Your task to perform on an android device: toggle wifi Image 0: 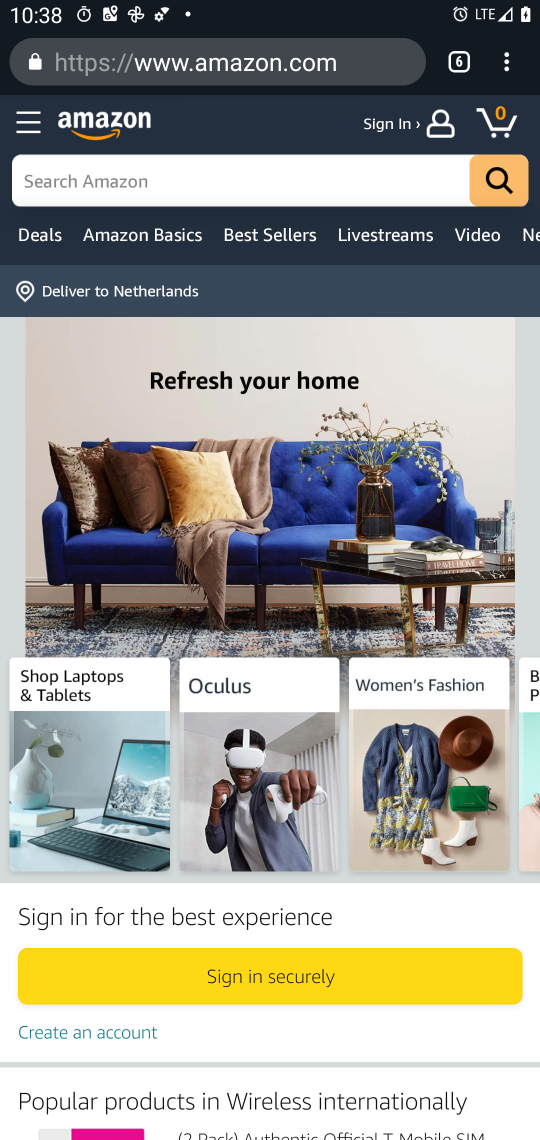
Step 0: press home button
Your task to perform on an android device: toggle wifi Image 1: 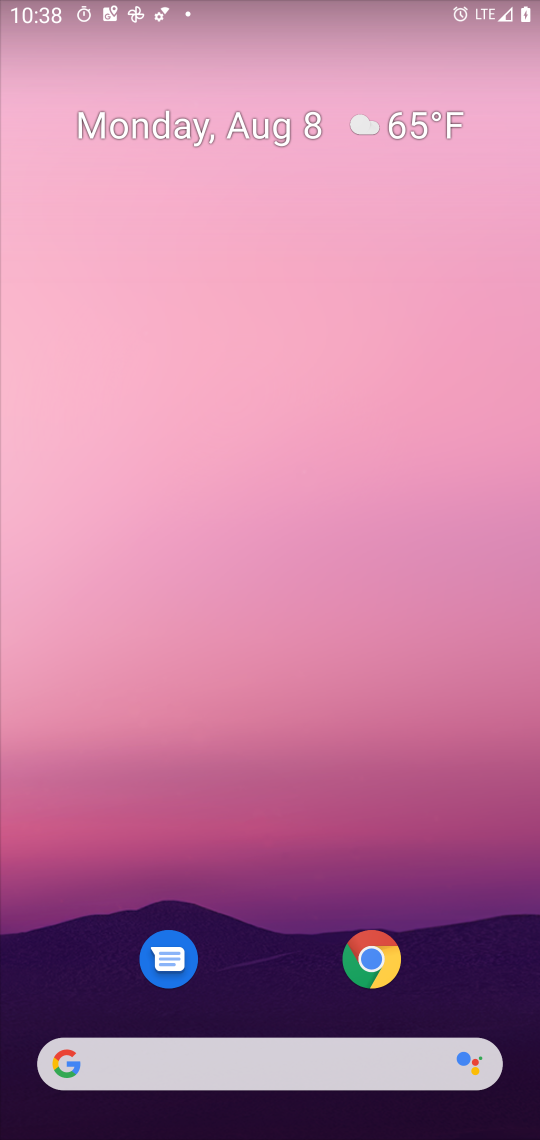
Step 1: drag from (441, 874) to (329, 387)
Your task to perform on an android device: toggle wifi Image 2: 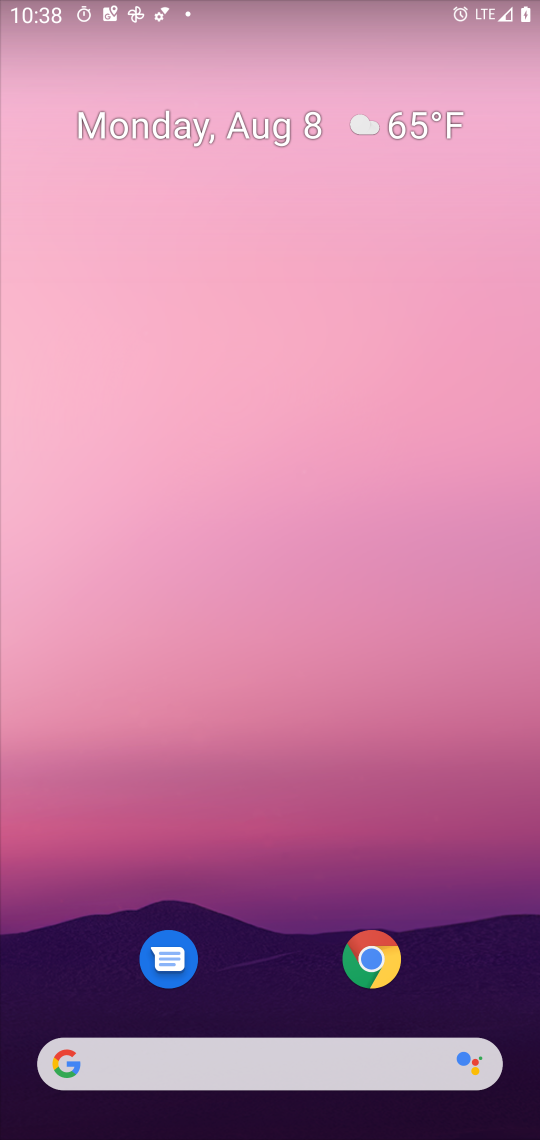
Step 2: drag from (270, 0) to (321, 741)
Your task to perform on an android device: toggle wifi Image 3: 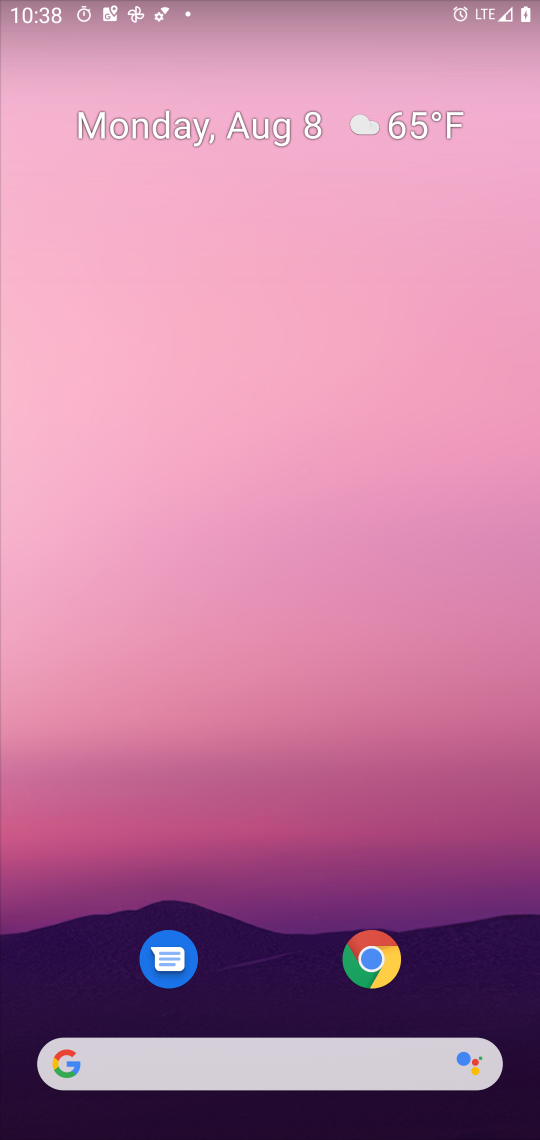
Step 3: drag from (282, 17) to (354, 880)
Your task to perform on an android device: toggle wifi Image 4: 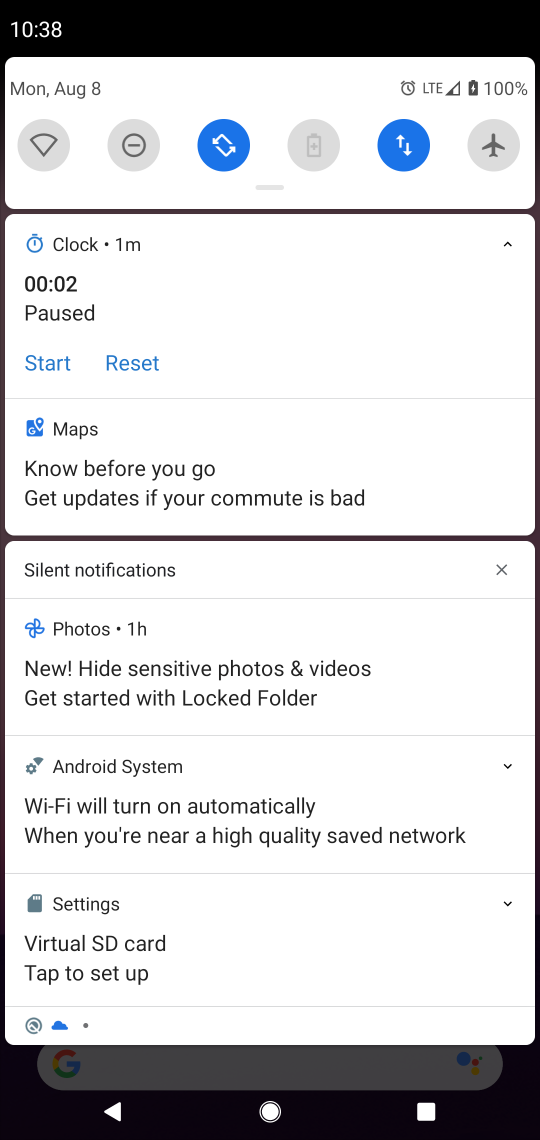
Step 4: click (40, 146)
Your task to perform on an android device: toggle wifi Image 5: 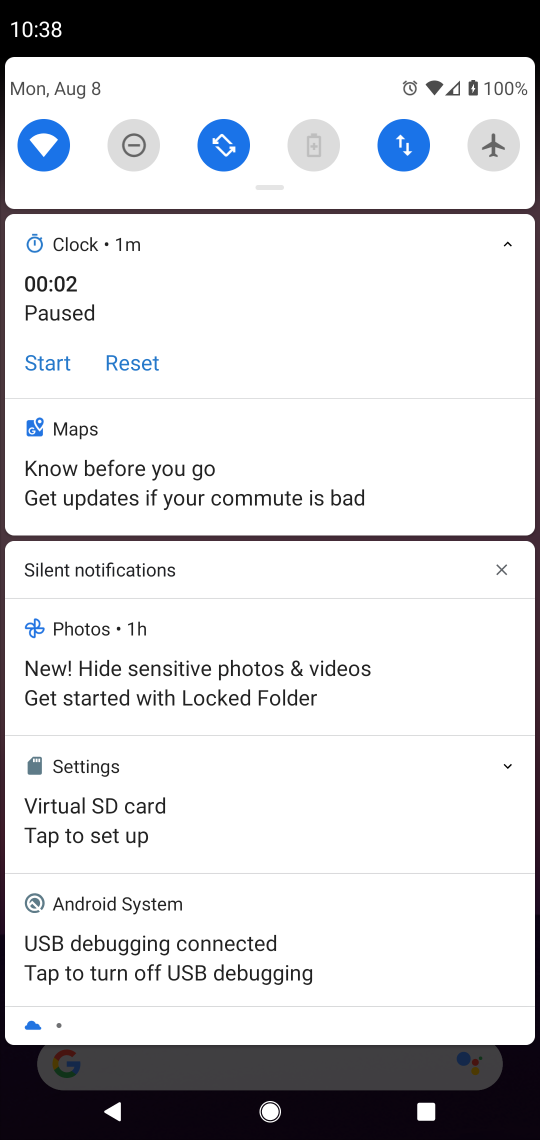
Step 5: task complete